Your task to perform on an android device: Open the calendar app, open the side menu, and click the "Day" option Image 0: 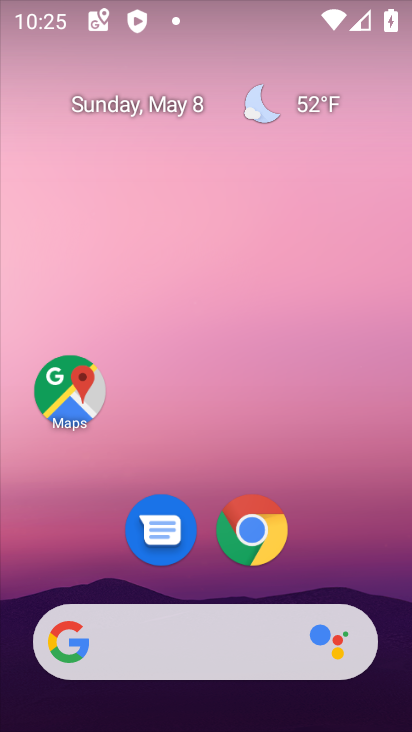
Step 0: drag from (343, 547) to (386, 68)
Your task to perform on an android device: Open the calendar app, open the side menu, and click the "Day" option Image 1: 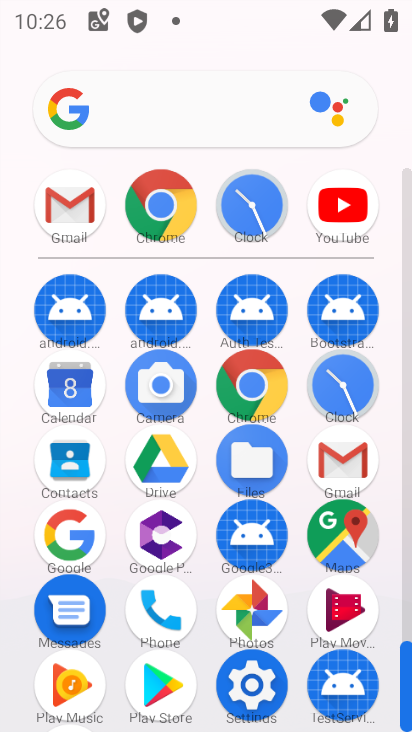
Step 1: click (71, 384)
Your task to perform on an android device: Open the calendar app, open the side menu, and click the "Day" option Image 2: 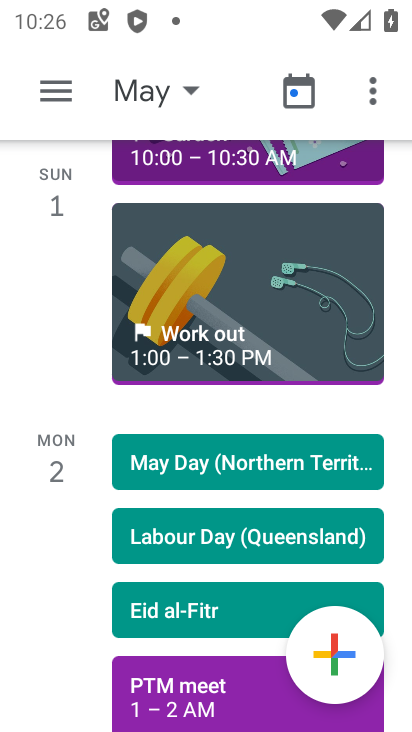
Step 2: click (53, 96)
Your task to perform on an android device: Open the calendar app, open the side menu, and click the "Day" option Image 3: 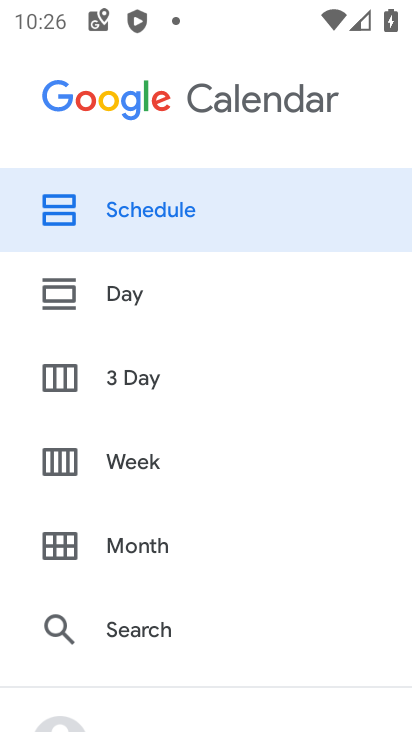
Step 3: click (134, 311)
Your task to perform on an android device: Open the calendar app, open the side menu, and click the "Day" option Image 4: 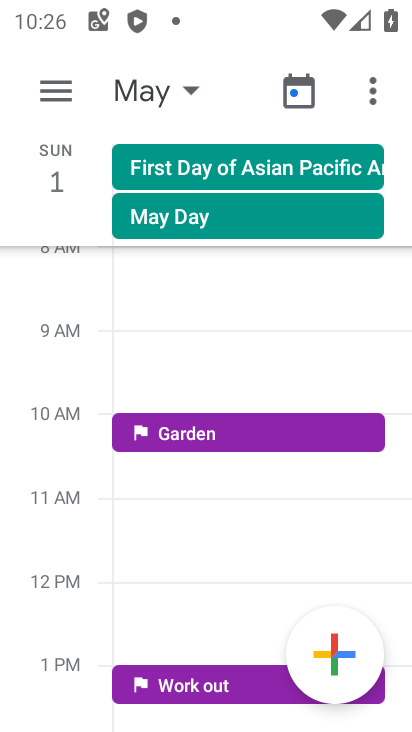
Step 4: task complete